Your task to perform on an android device: open app "Yahoo Mail" Image 0: 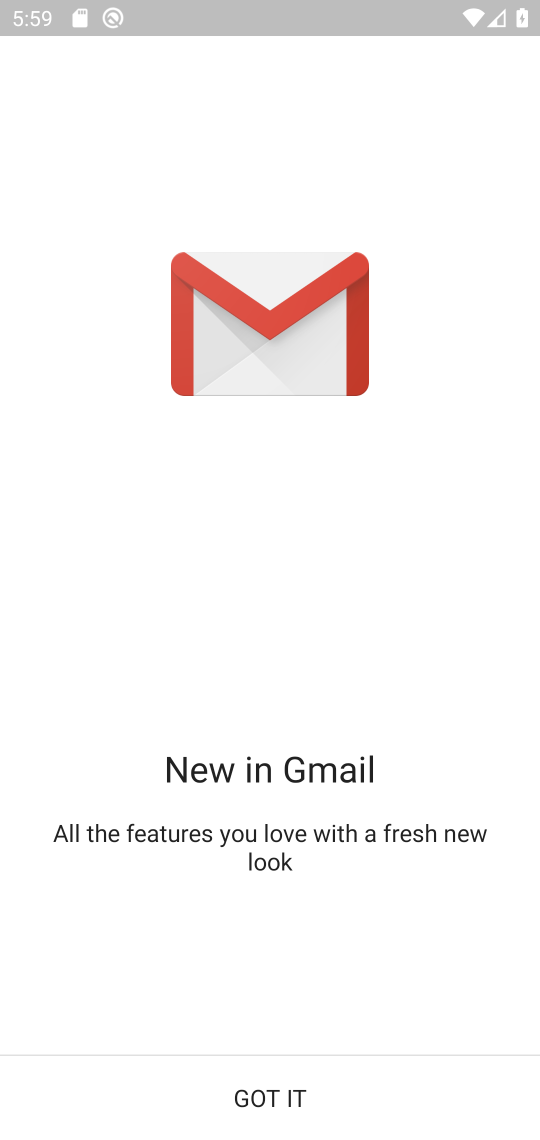
Step 0: press home button
Your task to perform on an android device: open app "Yahoo Mail" Image 1: 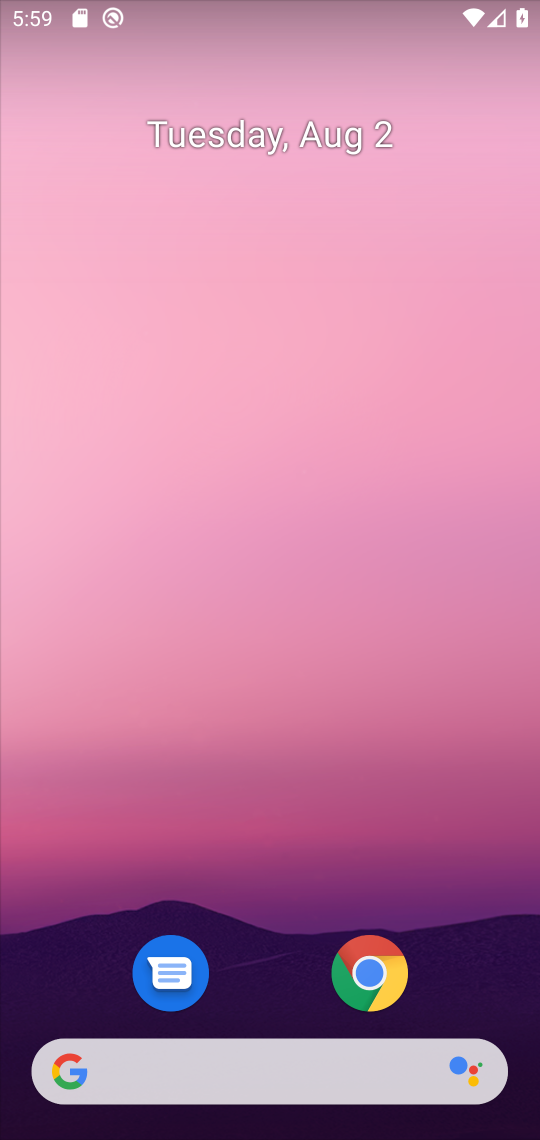
Step 1: drag from (286, 943) to (387, 1)
Your task to perform on an android device: open app "Yahoo Mail" Image 2: 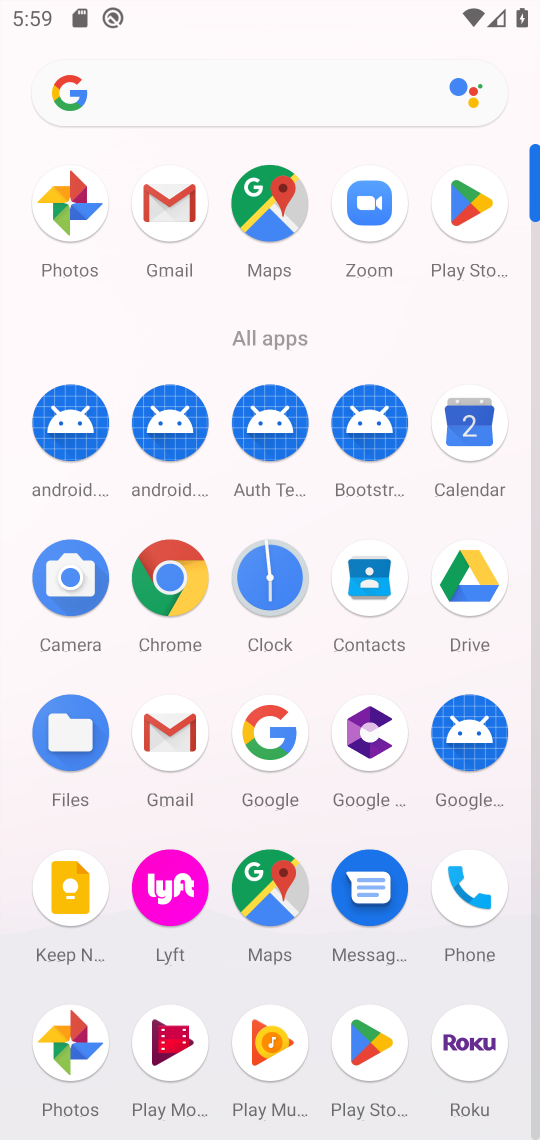
Step 2: click (463, 202)
Your task to perform on an android device: open app "Yahoo Mail" Image 3: 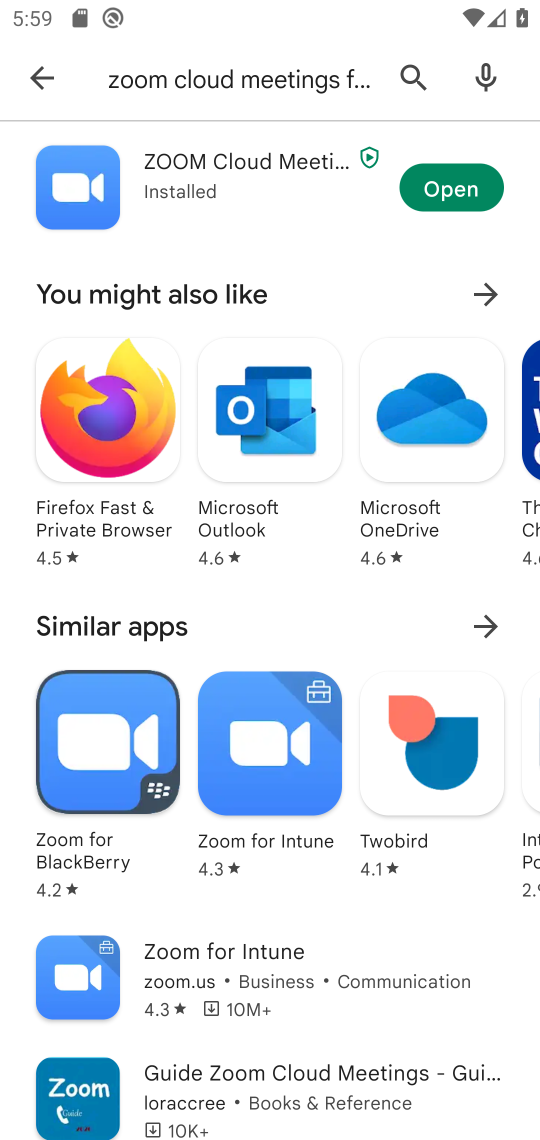
Step 3: click (394, 62)
Your task to perform on an android device: open app "Yahoo Mail" Image 4: 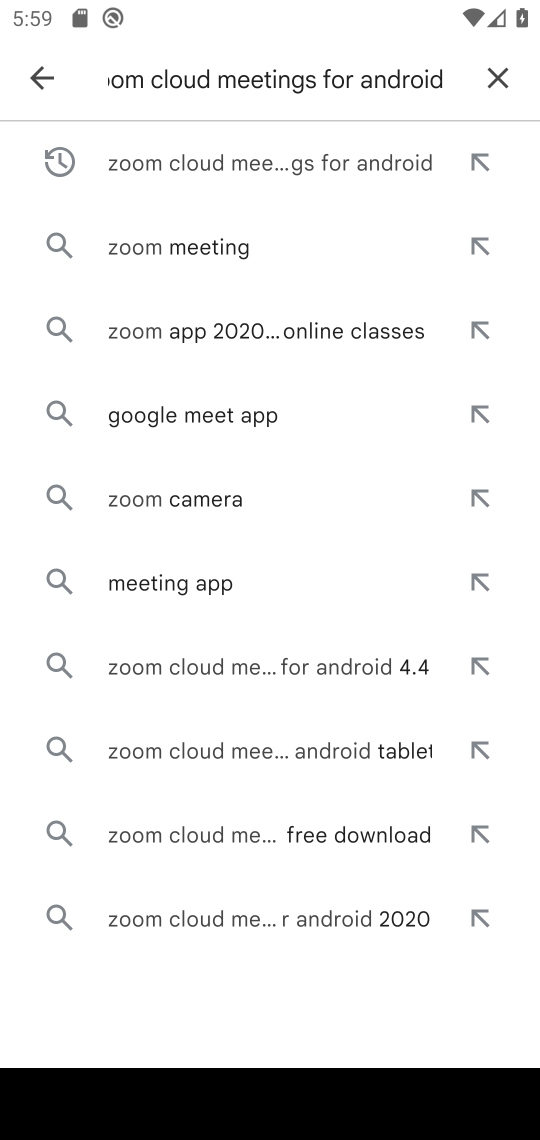
Step 4: click (499, 66)
Your task to perform on an android device: open app "Yahoo Mail" Image 5: 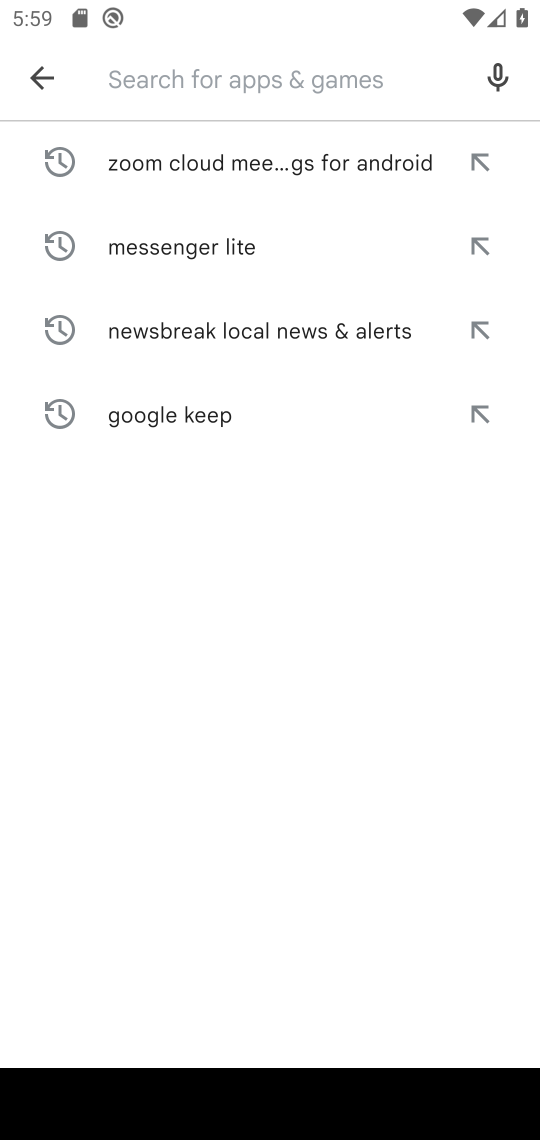
Step 5: type "yahoo mail"
Your task to perform on an android device: open app "Yahoo Mail" Image 6: 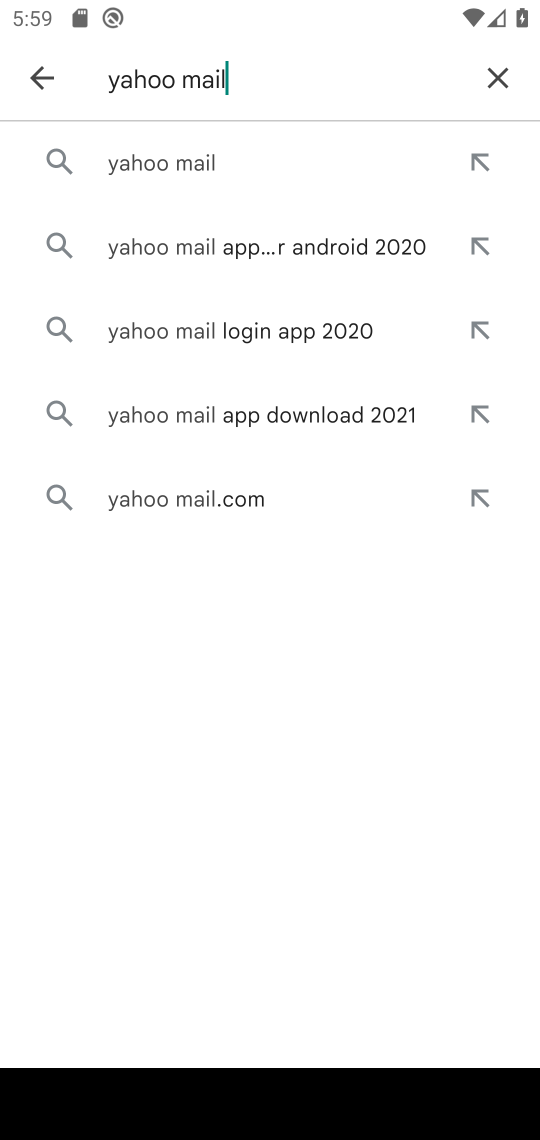
Step 6: click (186, 139)
Your task to perform on an android device: open app "Yahoo Mail" Image 7: 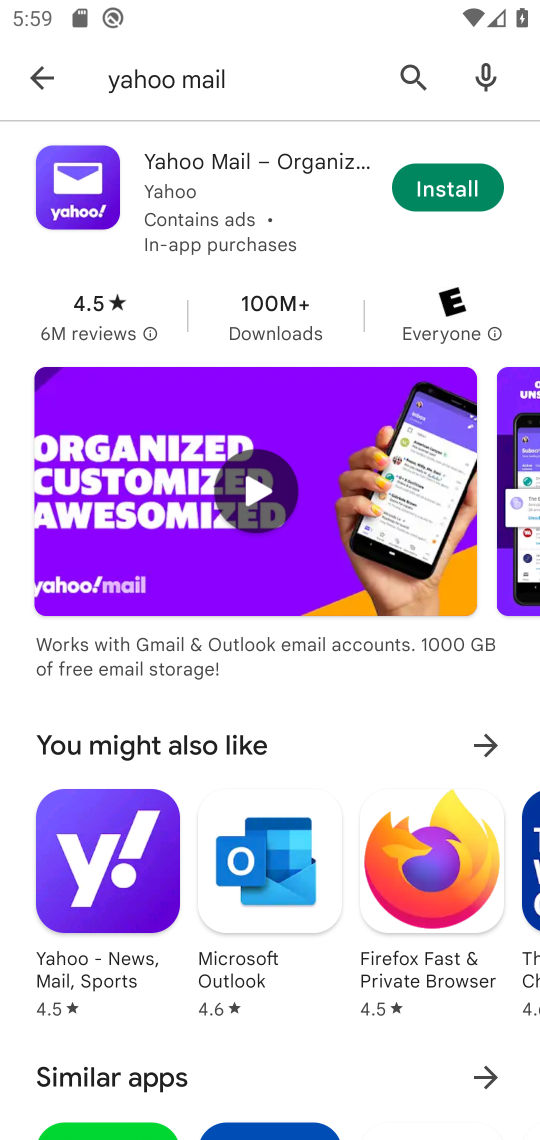
Step 7: click (177, 159)
Your task to perform on an android device: open app "Yahoo Mail" Image 8: 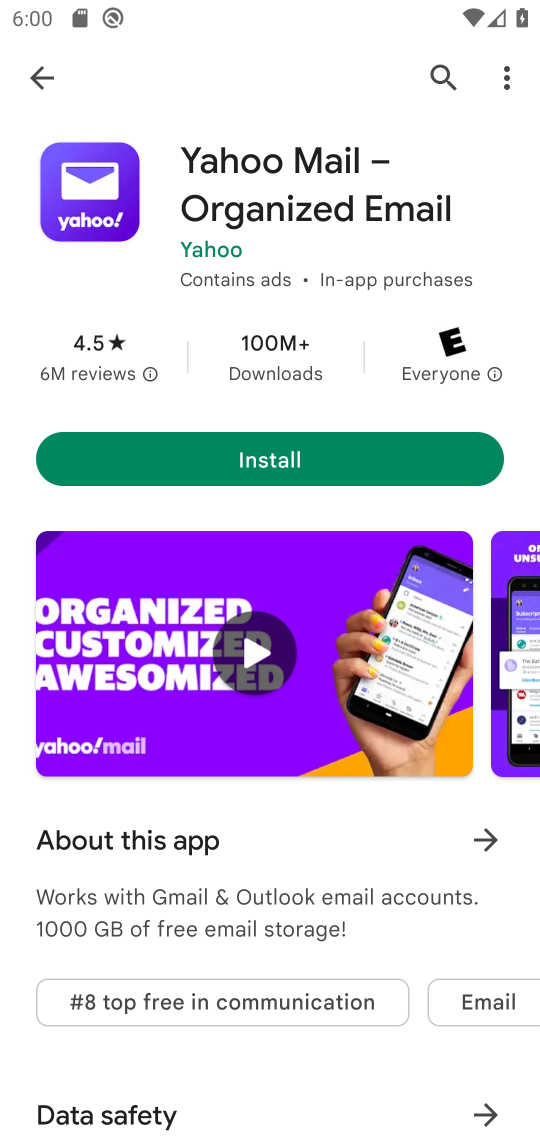
Step 8: task complete